Your task to perform on an android device: Search for a 3d printer on aliexpress Image 0: 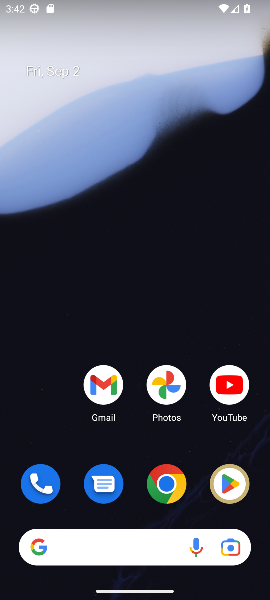
Step 0: click (164, 483)
Your task to perform on an android device: Search for a 3d printer on aliexpress Image 1: 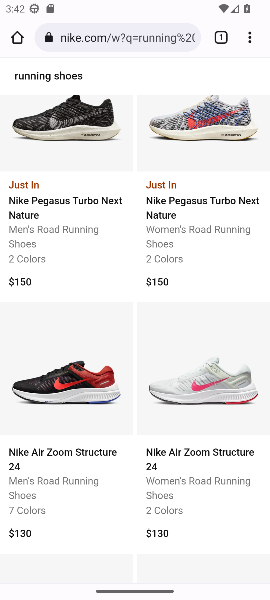
Step 1: click (137, 40)
Your task to perform on an android device: Search for a 3d printer on aliexpress Image 2: 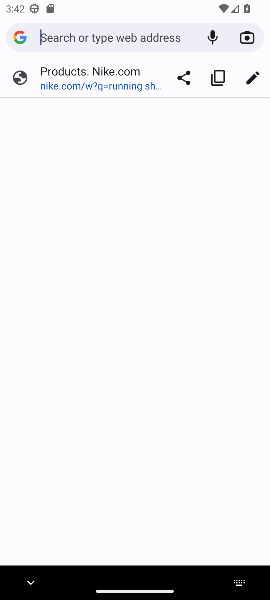
Step 2: type " aliexpress"
Your task to perform on an android device: Search for a 3d printer on aliexpress Image 3: 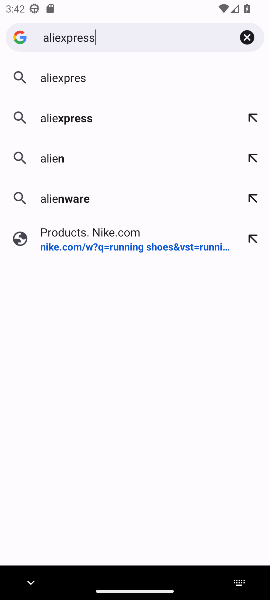
Step 3: press enter
Your task to perform on an android device: Search for a 3d printer on aliexpress Image 4: 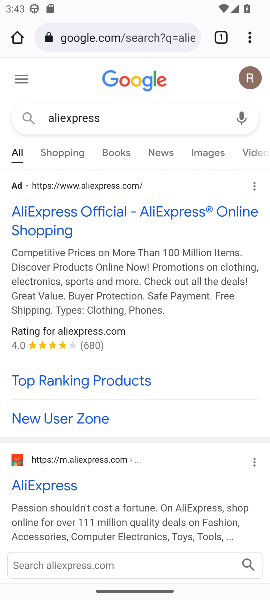
Step 4: click (107, 210)
Your task to perform on an android device: Search for a 3d printer on aliexpress Image 5: 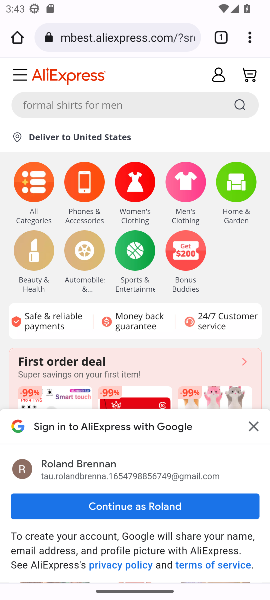
Step 5: click (166, 93)
Your task to perform on an android device: Search for a 3d printer on aliexpress Image 6: 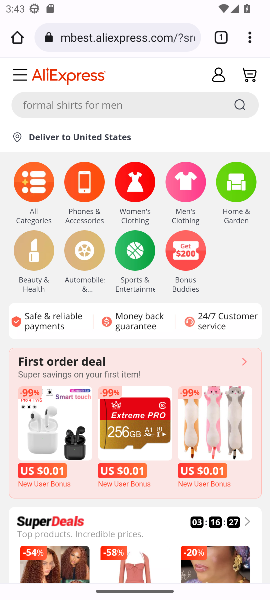
Step 6: click (160, 102)
Your task to perform on an android device: Search for a 3d printer on aliexpress Image 7: 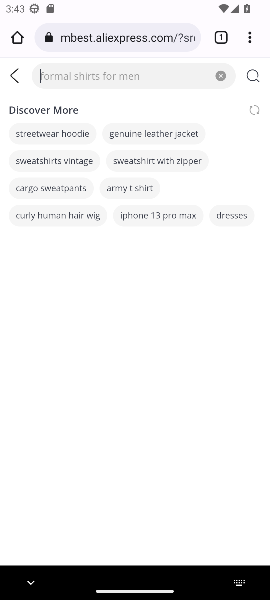
Step 7: type "3d printer"
Your task to perform on an android device: Search for a 3d printer on aliexpress Image 8: 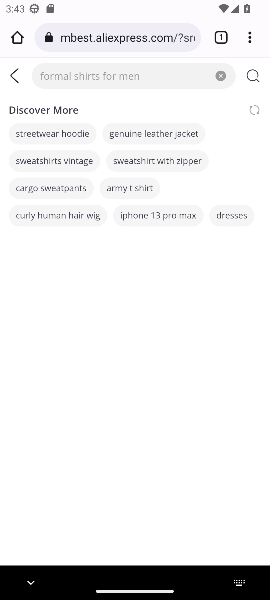
Step 8: press enter
Your task to perform on an android device: Search for a 3d printer on aliexpress Image 9: 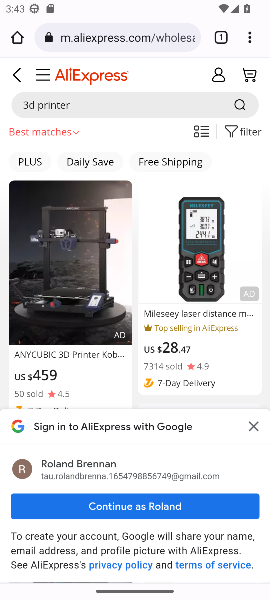
Step 9: click (167, 511)
Your task to perform on an android device: Search for a 3d printer on aliexpress Image 10: 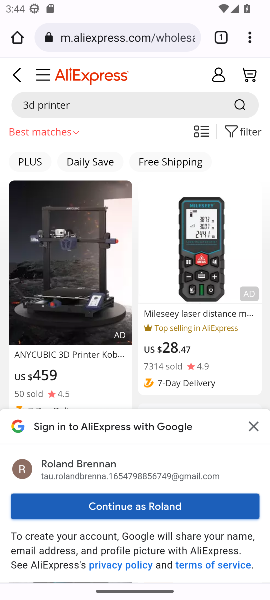
Step 10: click (147, 505)
Your task to perform on an android device: Search for a 3d printer on aliexpress Image 11: 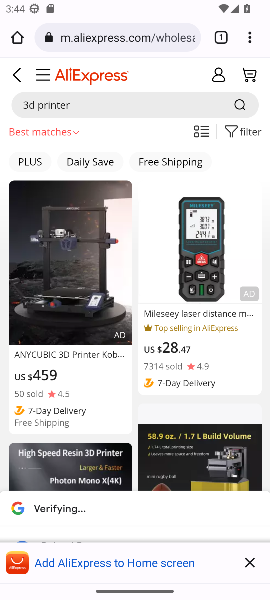
Step 11: task complete